Your task to perform on an android device: open app "Adobe Acrobat Reader: Edit PDF" (install if not already installed) Image 0: 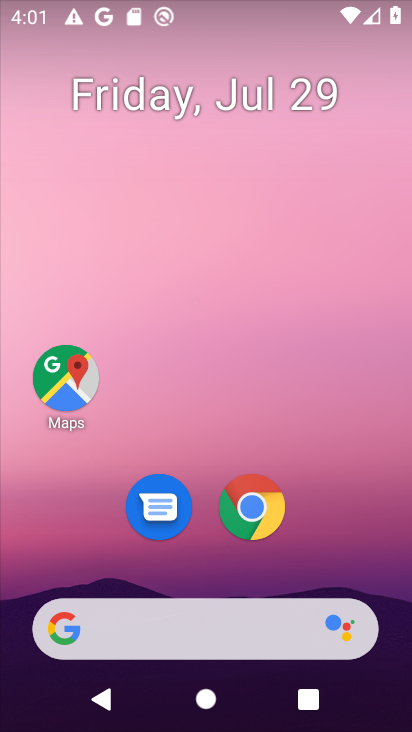
Step 0: drag from (185, 581) to (209, 26)
Your task to perform on an android device: open app "Adobe Acrobat Reader: Edit PDF" (install if not already installed) Image 1: 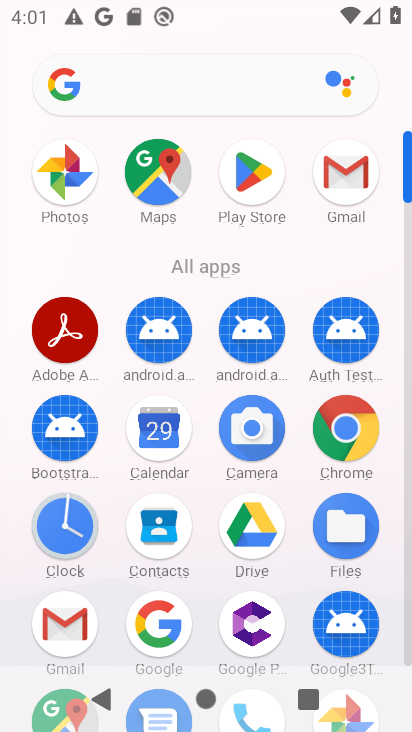
Step 1: click (87, 297)
Your task to perform on an android device: open app "Adobe Acrobat Reader: Edit PDF" (install if not already installed) Image 2: 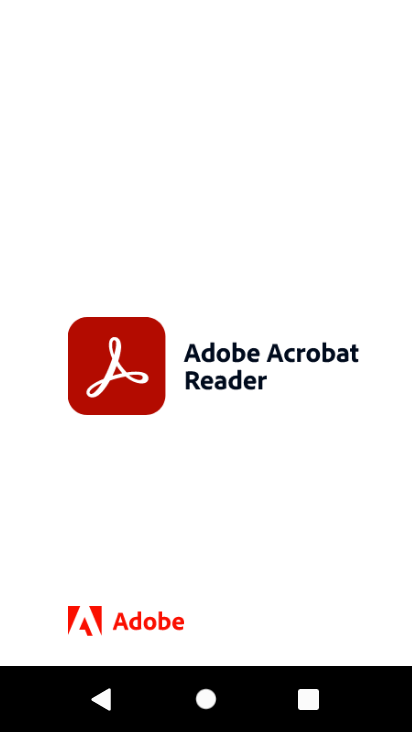
Step 2: task complete